Your task to perform on an android device: Open Chrome and go to settings Image 0: 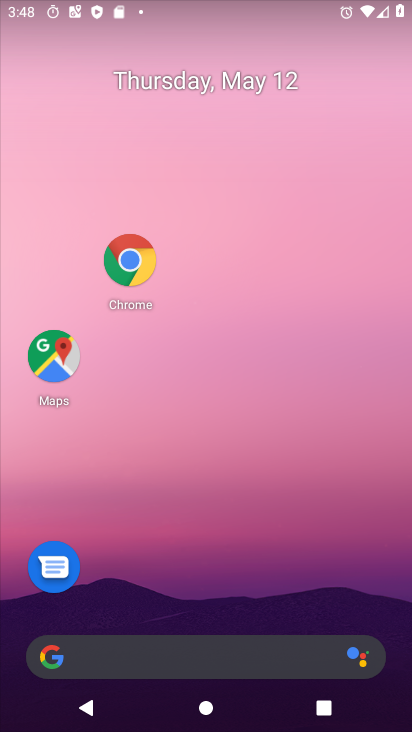
Step 0: drag from (182, 596) to (285, 211)
Your task to perform on an android device: Open Chrome and go to settings Image 1: 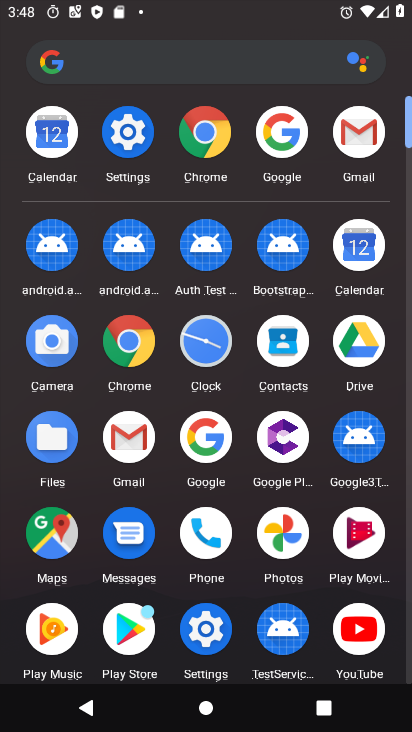
Step 1: click (203, 132)
Your task to perform on an android device: Open Chrome and go to settings Image 2: 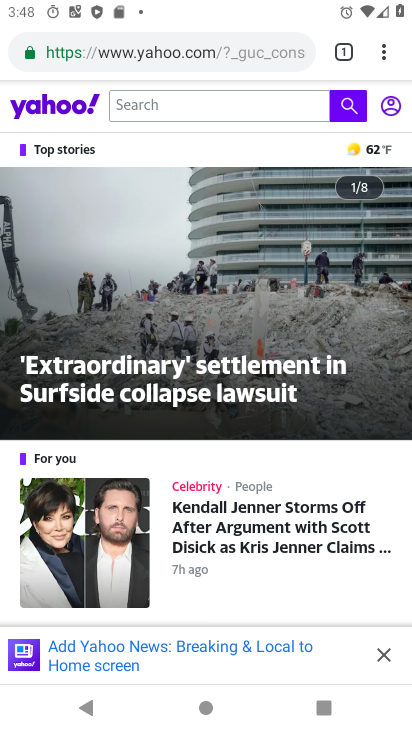
Step 2: click (385, 55)
Your task to perform on an android device: Open Chrome and go to settings Image 3: 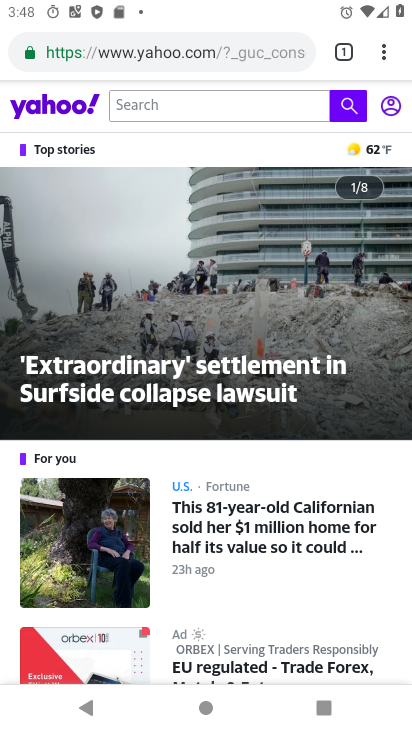
Step 3: click (385, 55)
Your task to perform on an android device: Open Chrome and go to settings Image 4: 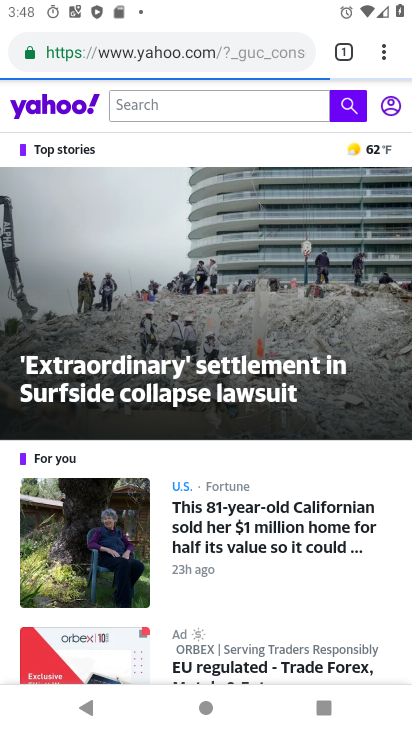
Step 4: click (385, 55)
Your task to perform on an android device: Open Chrome and go to settings Image 5: 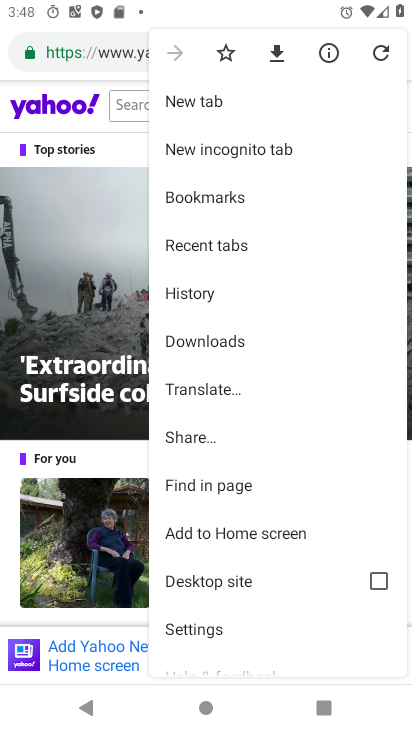
Step 5: click (219, 630)
Your task to perform on an android device: Open Chrome and go to settings Image 6: 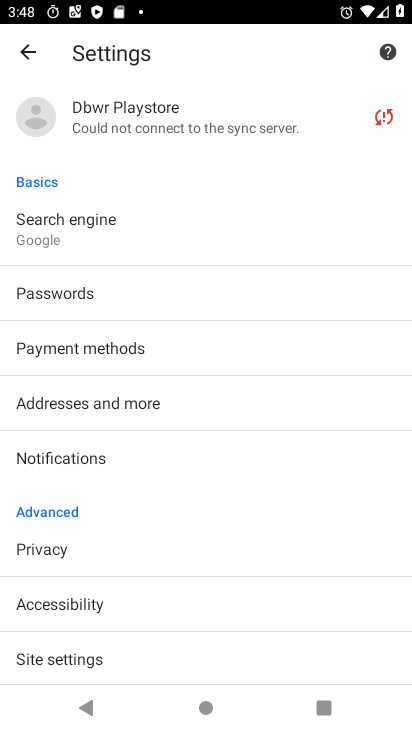
Step 6: task complete